Your task to perform on an android device: What's on my calendar tomorrow? Image 0: 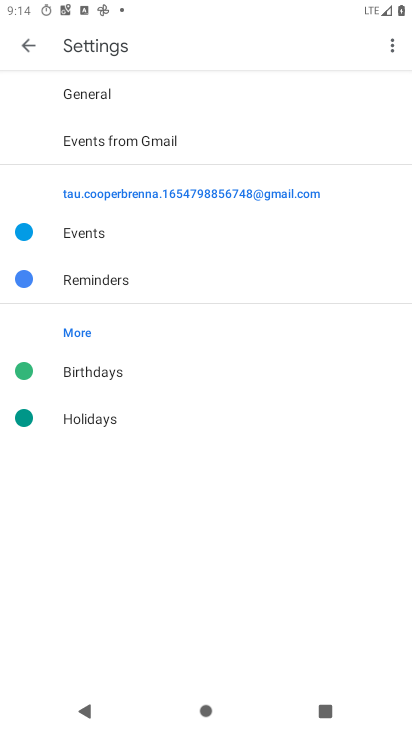
Step 0: press home button
Your task to perform on an android device: What's on my calendar tomorrow? Image 1: 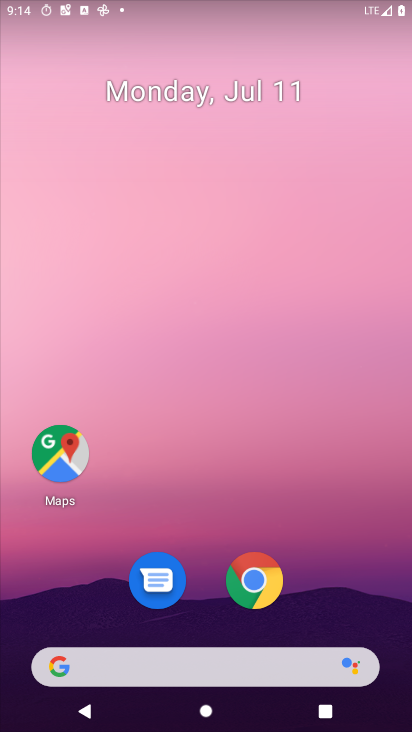
Step 1: drag from (247, 481) to (251, 21)
Your task to perform on an android device: What's on my calendar tomorrow? Image 2: 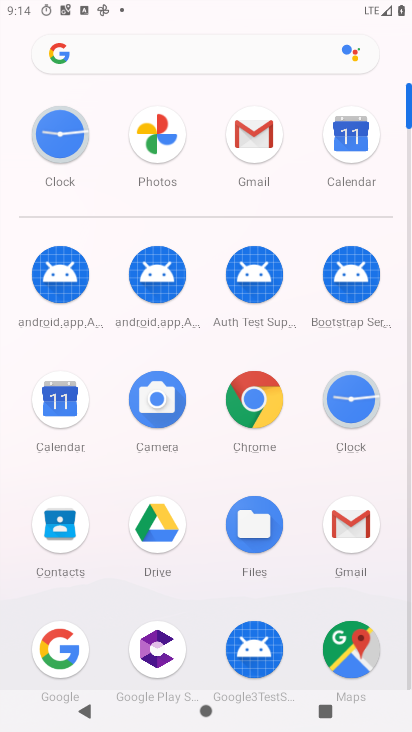
Step 2: click (50, 394)
Your task to perform on an android device: What's on my calendar tomorrow? Image 3: 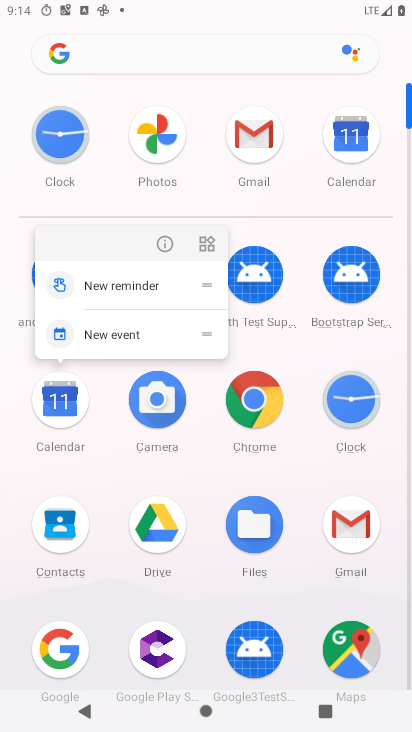
Step 3: click (57, 398)
Your task to perform on an android device: What's on my calendar tomorrow? Image 4: 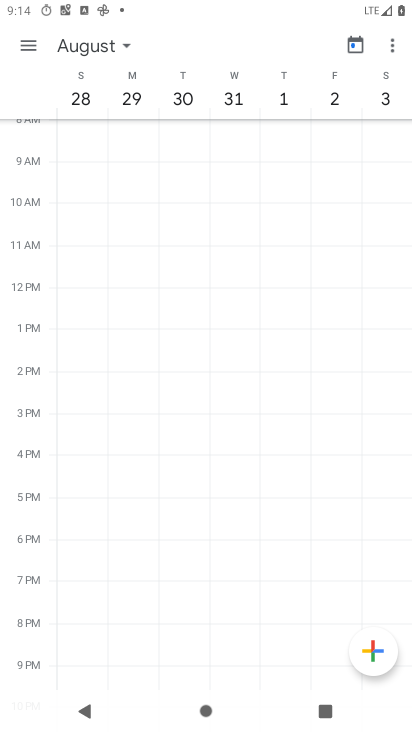
Step 4: click (34, 42)
Your task to perform on an android device: What's on my calendar tomorrow? Image 5: 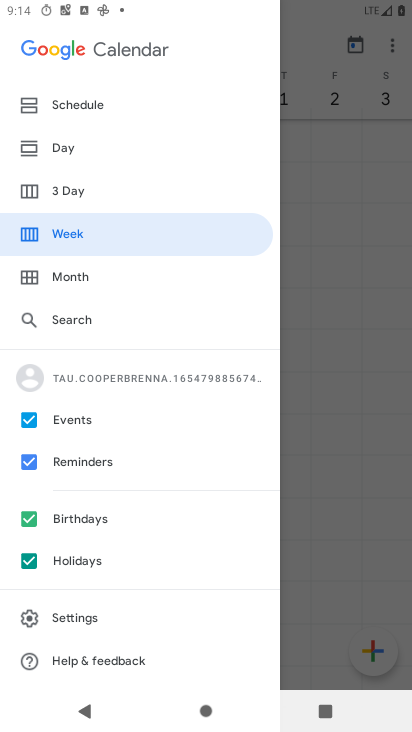
Step 5: click (53, 267)
Your task to perform on an android device: What's on my calendar tomorrow? Image 6: 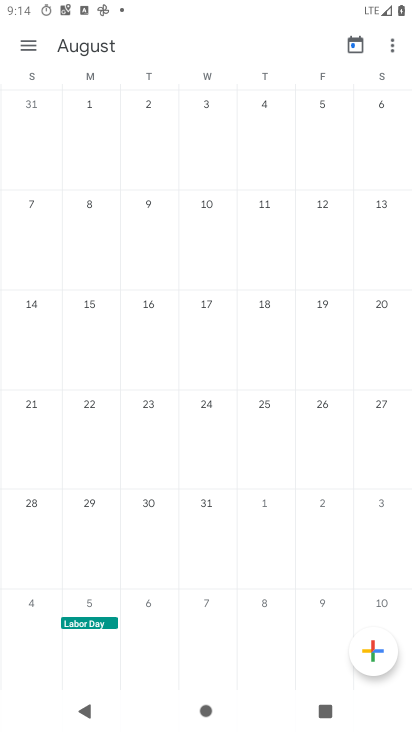
Step 6: drag from (106, 257) to (403, 350)
Your task to perform on an android device: What's on my calendar tomorrow? Image 7: 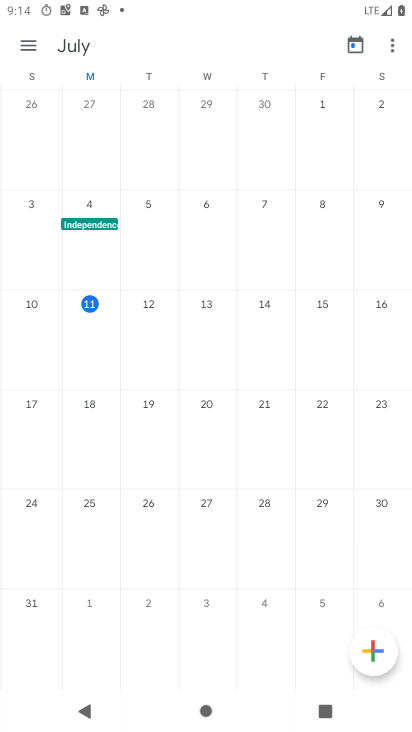
Step 7: click (88, 298)
Your task to perform on an android device: What's on my calendar tomorrow? Image 8: 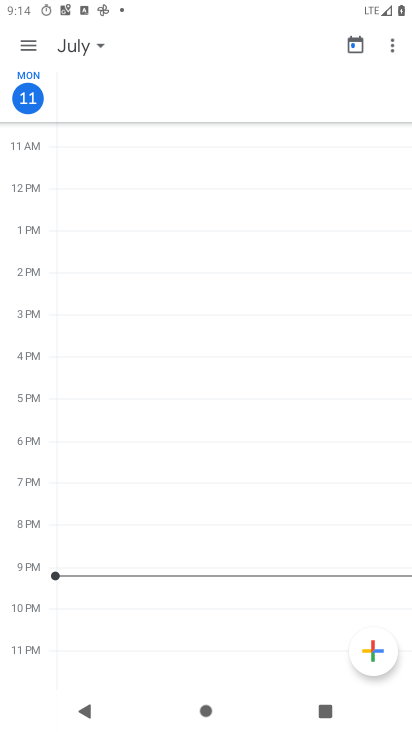
Step 8: click (29, 46)
Your task to perform on an android device: What's on my calendar tomorrow? Image 9: 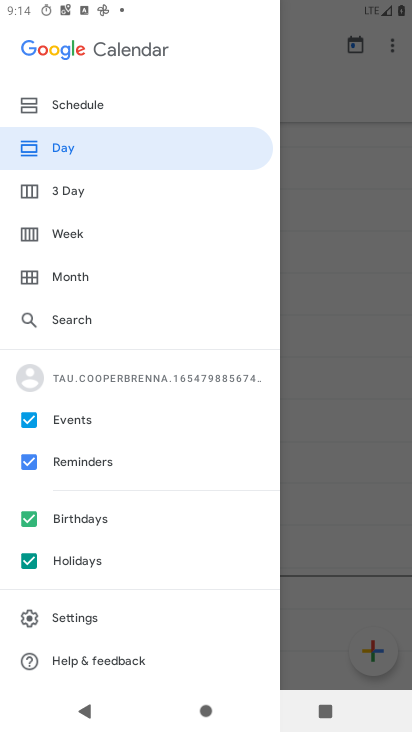
Step 9: click (62, 196)
Your task to perform on an android device: What's on my calendar tomorrow? Image 10: 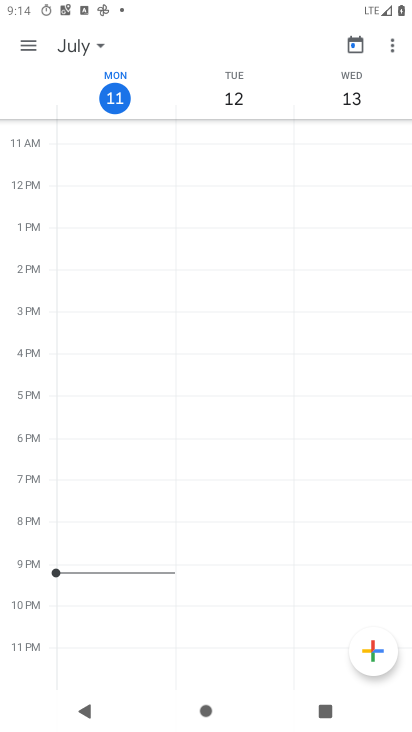
Step 10: task complete